Your task to perform on an android device: change your default location settings in chrome Image 0: 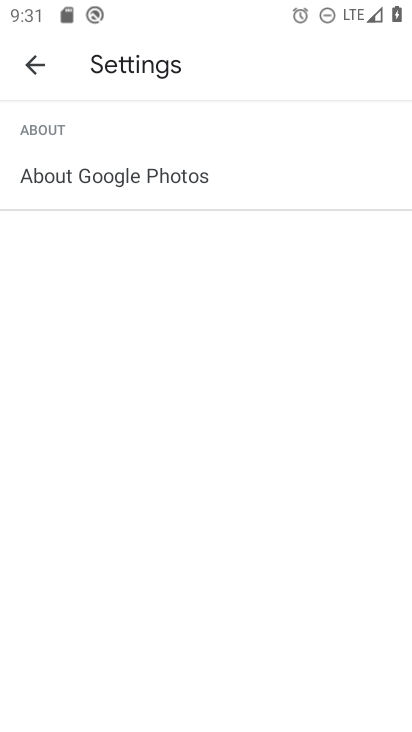
Step 0: press home button
Your task to perform on an android device: change your default location settings in chrome Image 1: 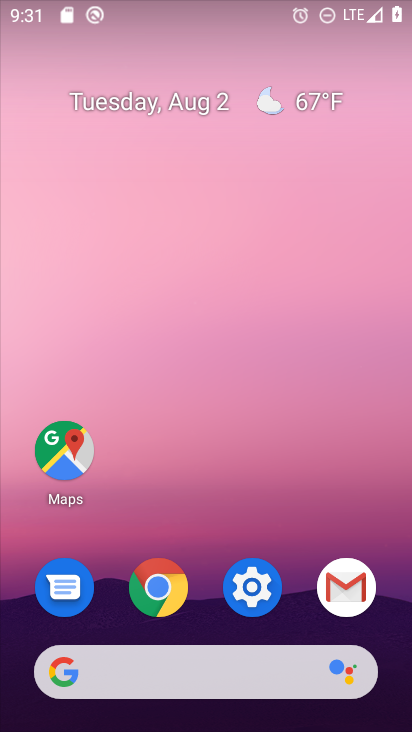
Step 1: click (169, 583)
Your task to perform on an android device: change your default location settings in chrome Image 2: 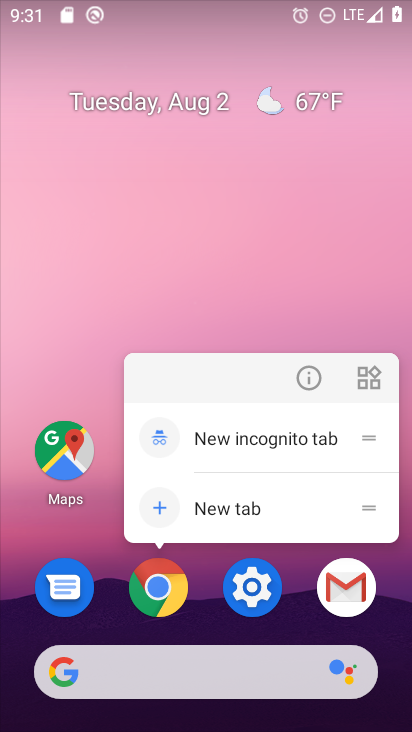
Step 2: click (170, 580)
Your task to perform on an android device: change your default location settings in chrome Image 3: 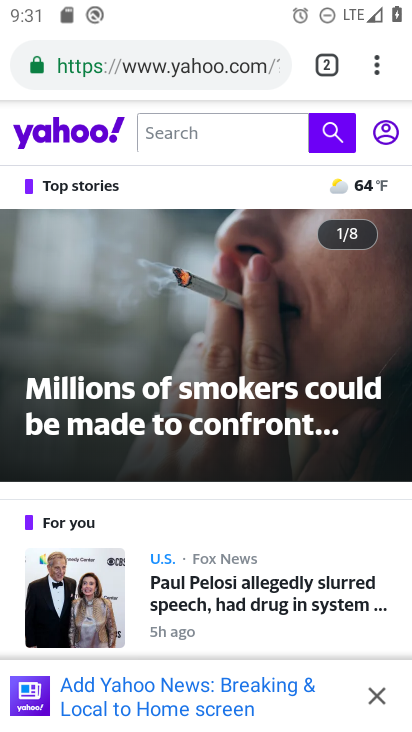
Step 3: click (375, 71)
Your task to perform on an android device: change your default location settings in chrome Image 4: 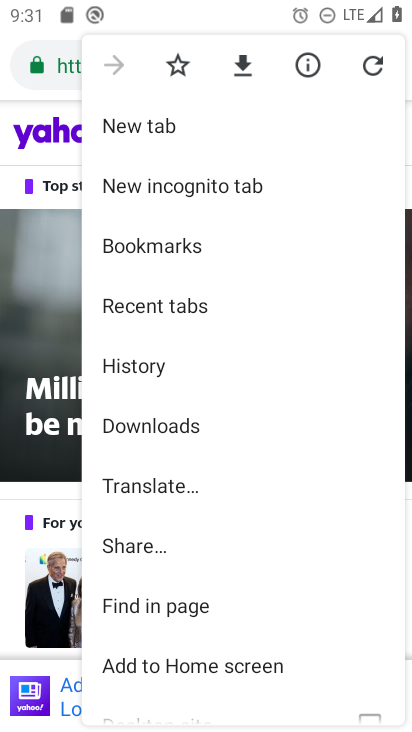
Step 4: drag from (206, 484) to (207, 448)
Your task to perform on an android device: change your default location settings in chrome Image 5: 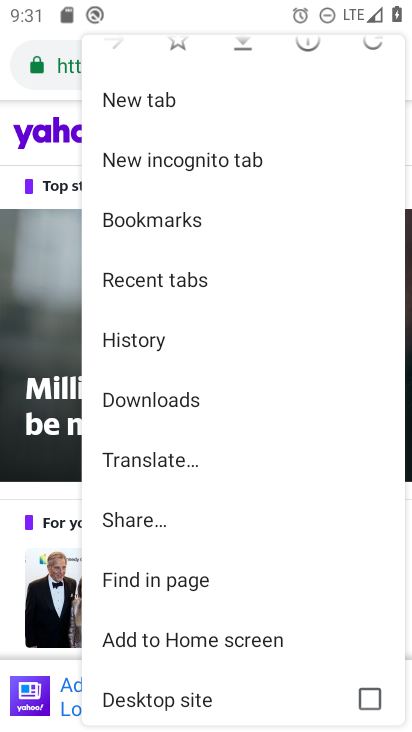
Step 5: drag from (243, 583) to (277, 457)
Your task to perform on an android device: change your default location settings in chrome Image 6: 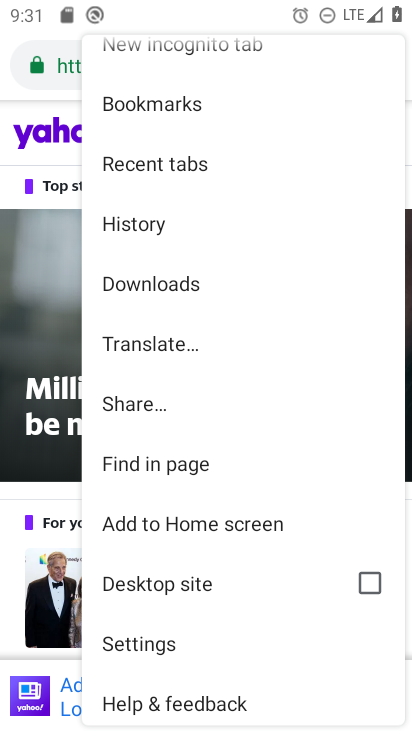
Step 6: click (180, 646)
Your task to perform on an android device: change your default location settings in chrome Image 7: 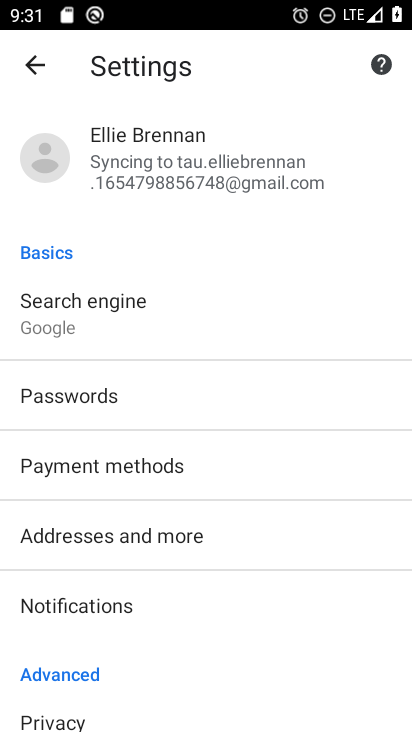
Step 7: drag from (137, 551) to (188, 364)
Your task to perform on an android device: change your default location settings in chrome Image 8: 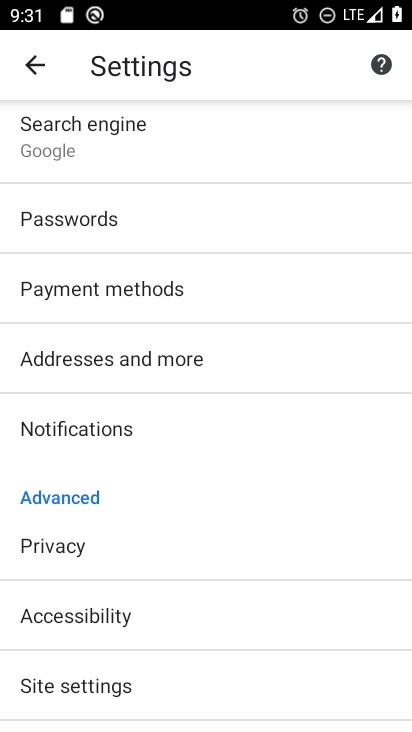
Step 8: click (89, 677)
Your task to perform on an android device: change your default location settings in chrome Image 9: 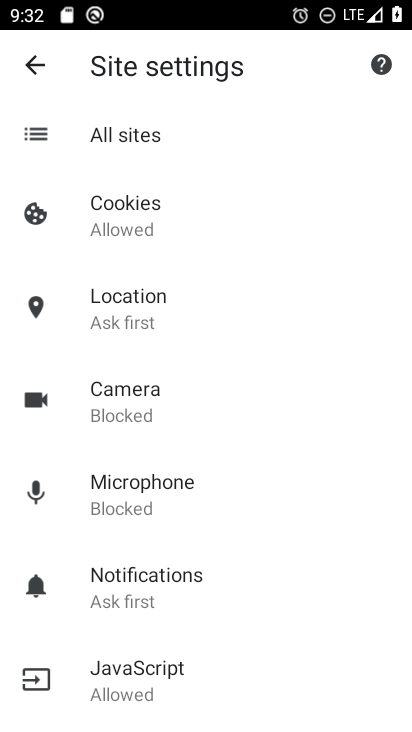
Step 9: click (102, 313)
Your task to perform on an android device: change your default location settings in chrome Image 10: 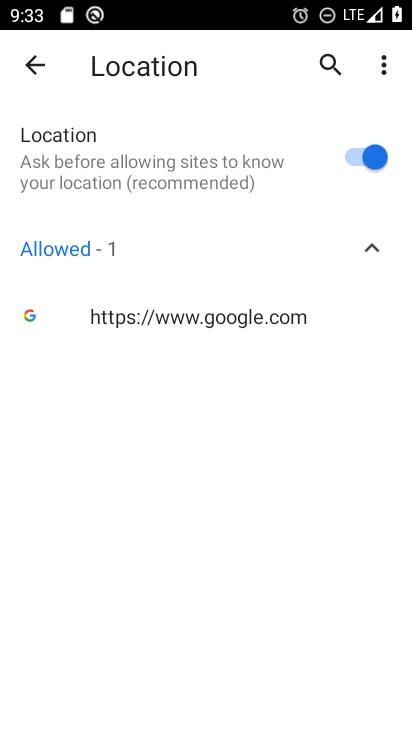
Step 10: task complete